Your task to perform on an android device: Open Google Chrome and open the bookmarks view Image 0: 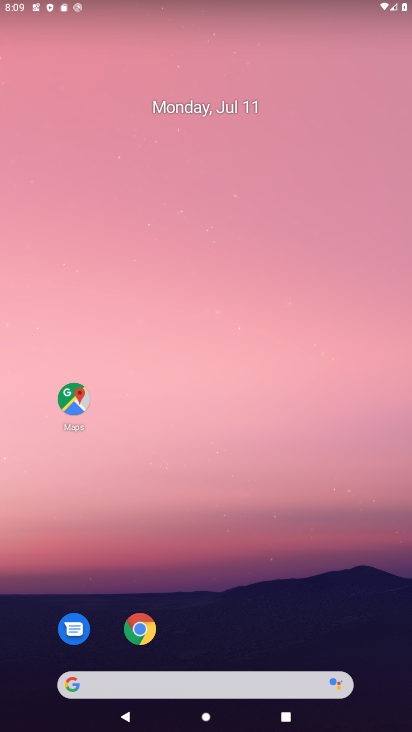
Step 0: drag from (210, 640) to (199, 123)
Your task to perform on an android device: Open Google Chrome and open the bookmarks view Image 1: 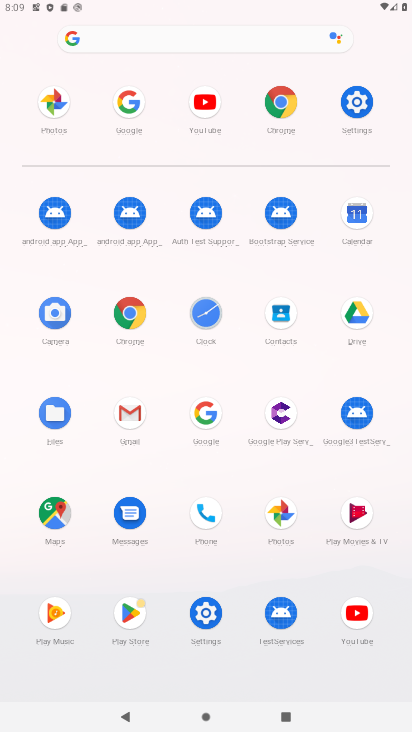
Step 1: click (132, 318)
Your task to perform on an android device: Open Google Chrome and open the bookmarks view Image 2: 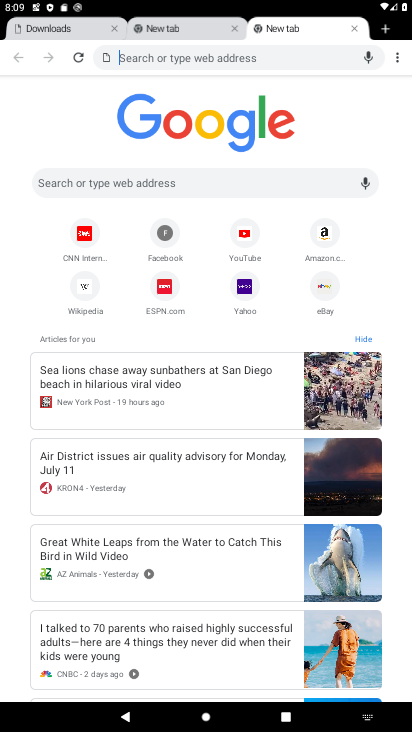
Step 2: click (392, 60)
Your task to perform on an android device: Open Google Chrome and open the bookmarks view Image 3: 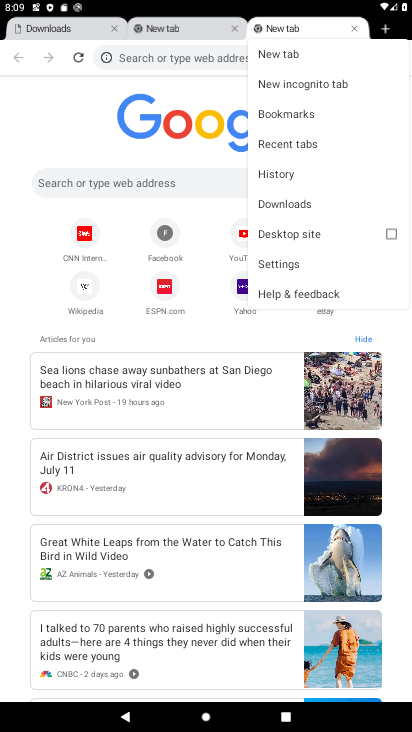
Step 3: click (280, 115)
Your task to perform on an android device: Open Google Chrome and open the bookmarks view Image 4: 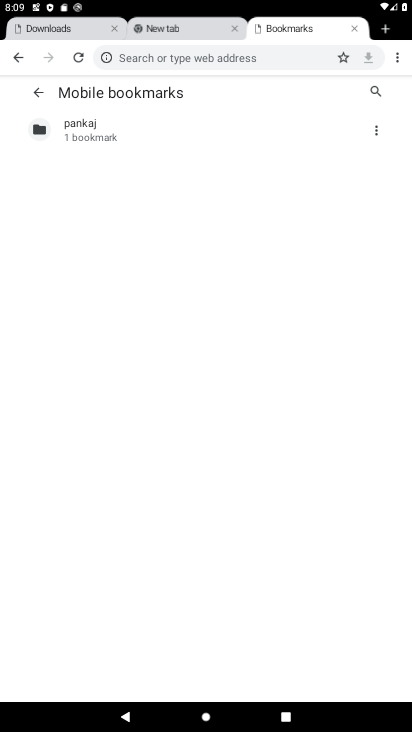
Step 4: task complete